Your task to perform on an android device: allow notifications from all sites in the chrome app Image 0: 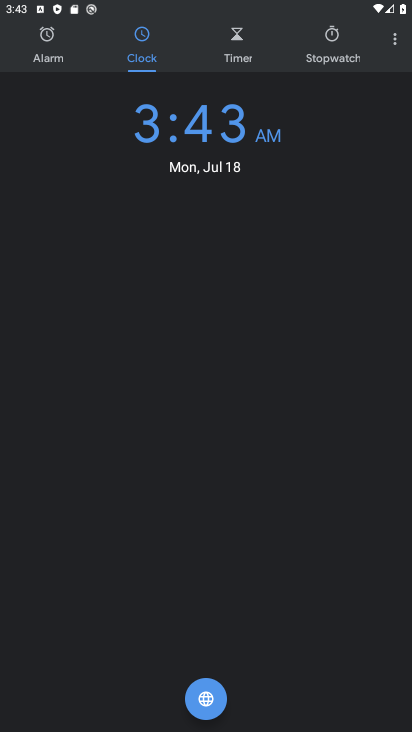
Step 0: press back button
Your task to perform on an android device: allow notifications from all sites in the chrome app Image 1: 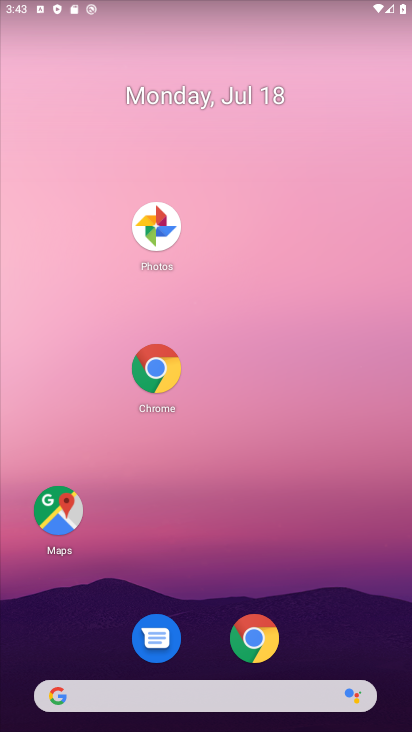
Step 1: click (242, 632)
Your task to perform on an android device: allow notifications from all sites in the chrome app Image 2: 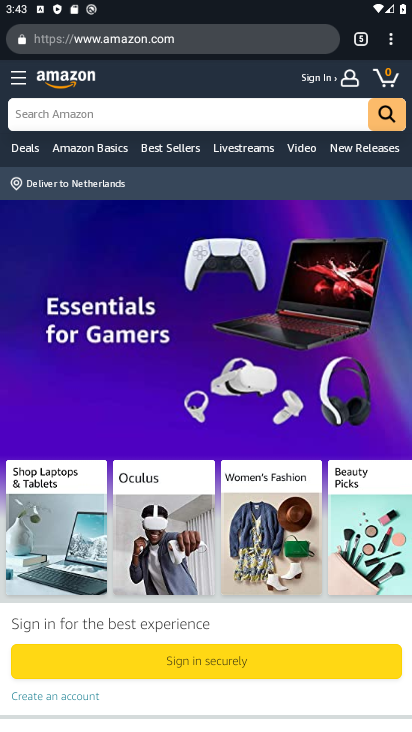
Step 2: click (391, 46)
Your task to perform on an android device: allow notifications from all sites in the chrome app Image 3: 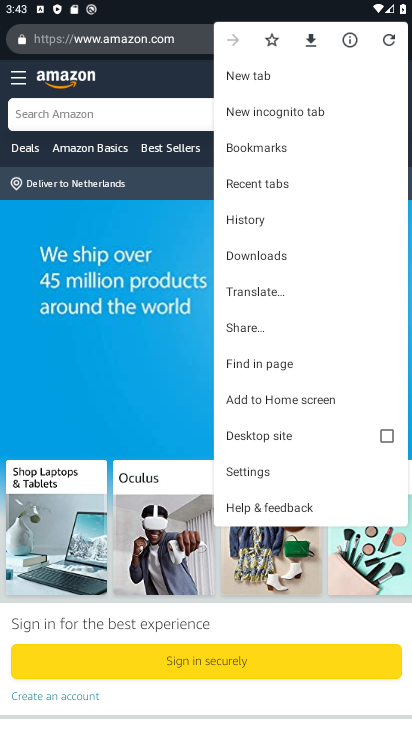
Step 3: click (263, 472)
Your task to perform on an android device: allow notifications from all sites in the chrome app Image 4: 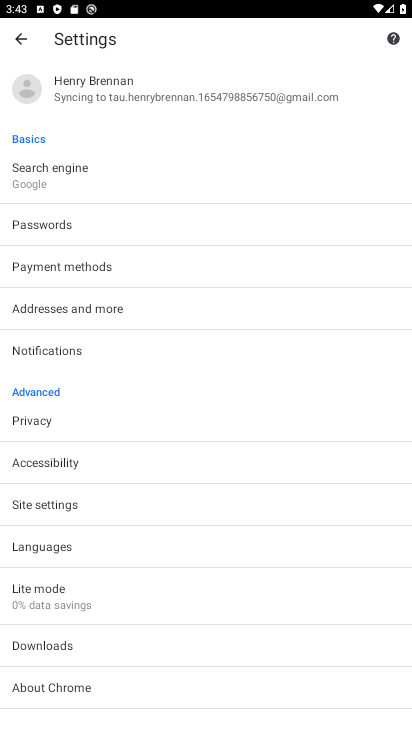
Step 4: click (101, 360)
Your task to perform on an android device: allow notifications from all sites in the chrome app Image 5: 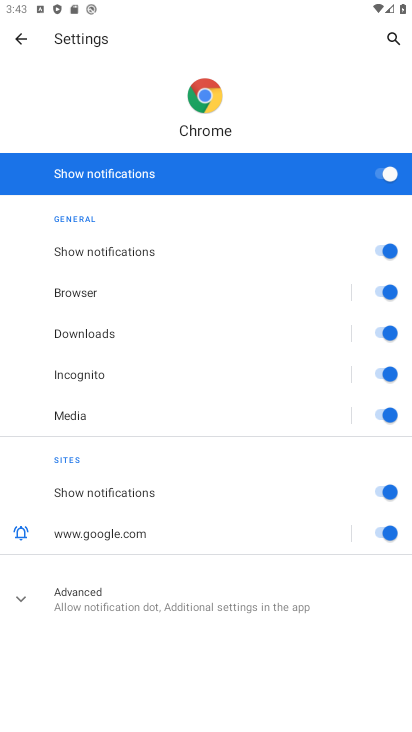
Step 5: task complete